Your task to perform on an android device: Show me popular games on the Play Store Image 0: 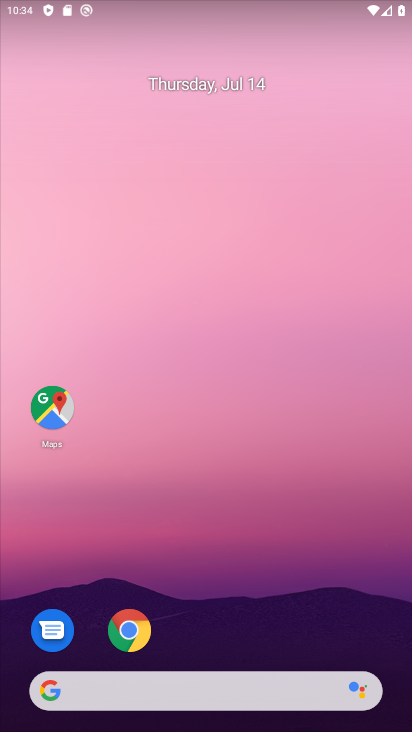
Step 0: drag from (268, 600) to (309, 369)
Your task to perform on an android device: Show me popular games on the Play Store Image 1: 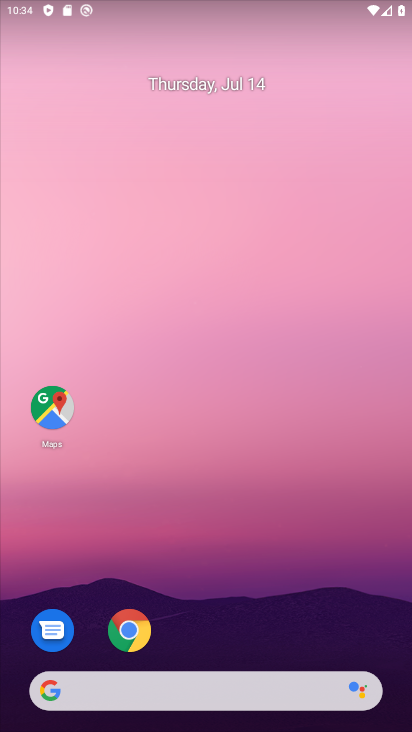
Step 1: drag from (221, 629) to (223, 365)
Your task to perform on an android device: Show me popular games on the Play Store Image 2: 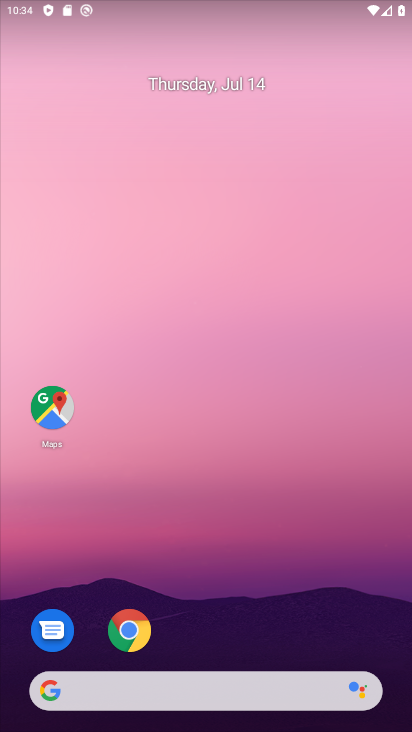
Step 2: drag from (224, 632) to (232, 248)
Your task to perform on an android device: Show me popular games on the Play Store Image 3: 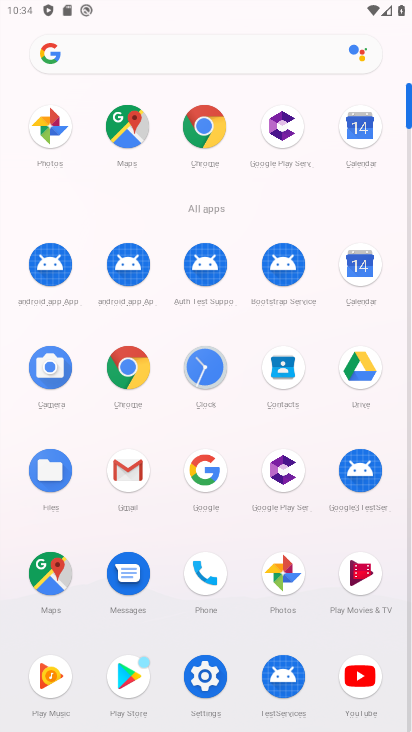
Step 3: click (130, 678)
Your task to perform on an android device: Show me popular games on the Play Store Image 4: 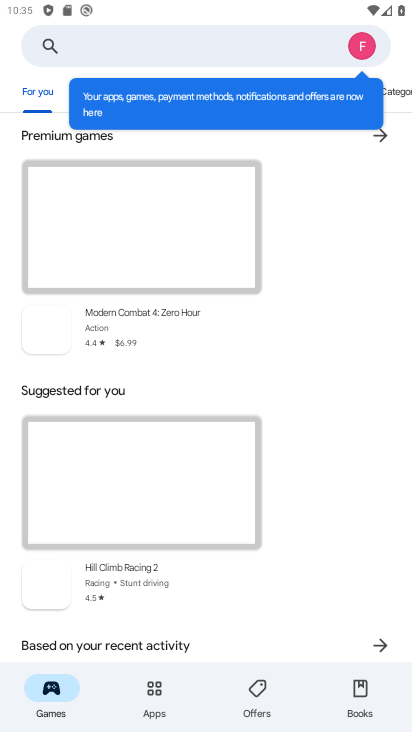
Step 4: click (50, 684)
Your task to perform on an android device: Show me popular games on the Play Store Image 5: 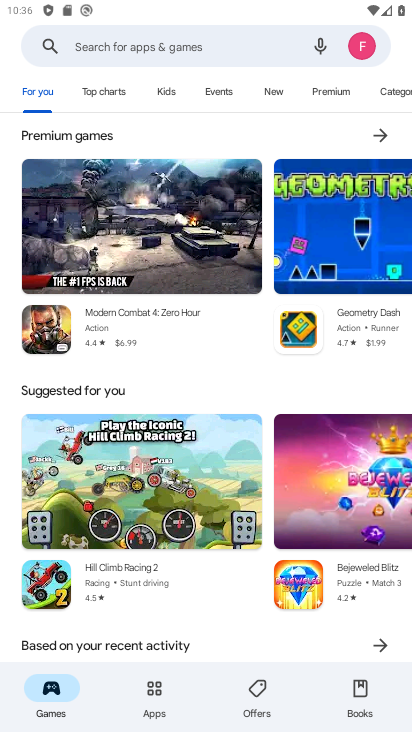
Step 5: task complete